Your task to perform on an android device: Open Amazon Image 0: 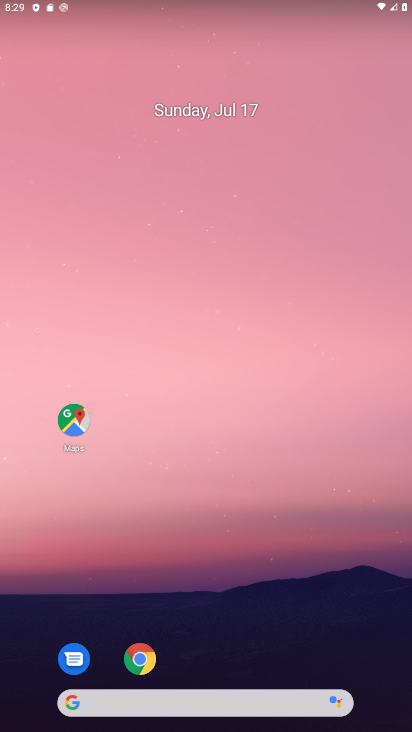
Step 0: click (139, 659)
Your task to perform on an android device: Open Amazon Image 1: 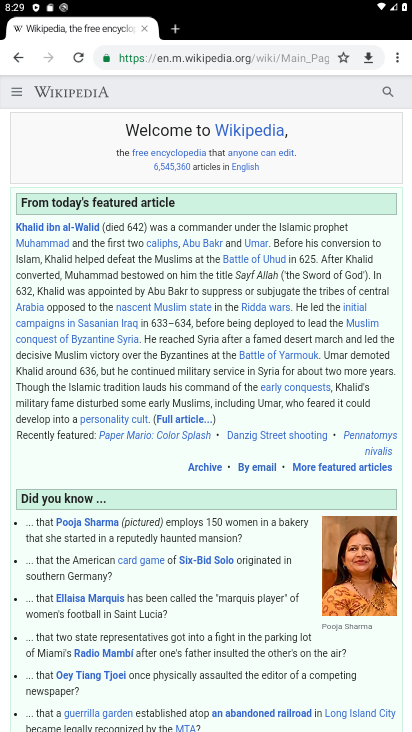
Step 1: click (304, 55)
Your task to perform on an android device: Open Amazon Image 2: 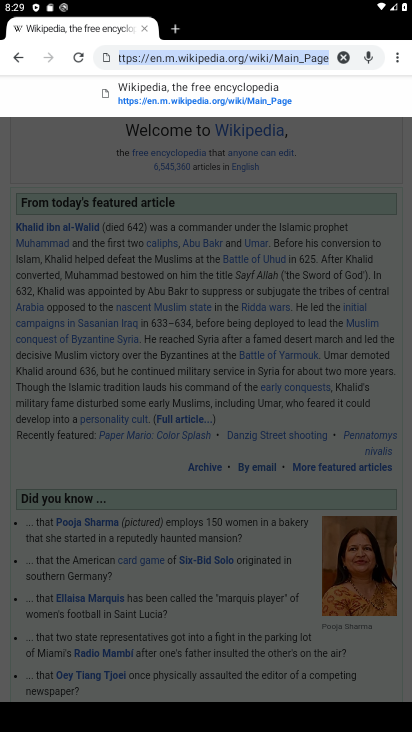
Step 2: click (342, 56)
Your task to perform on an android device: Open Amazon Image 3: 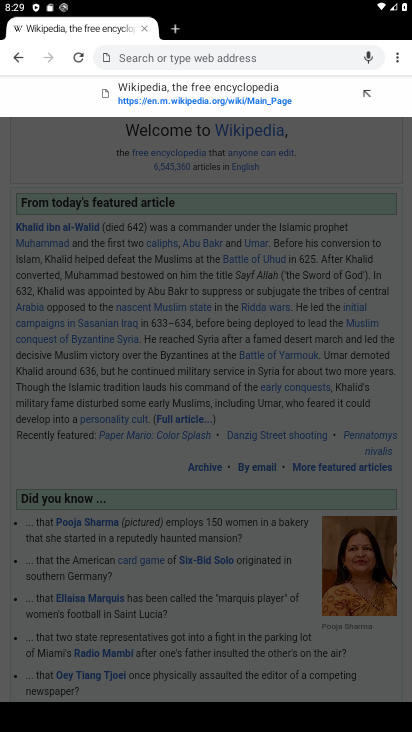
Step 3: click (312, 55)
Your task to perform on an android device: Open Amazon Image 4: 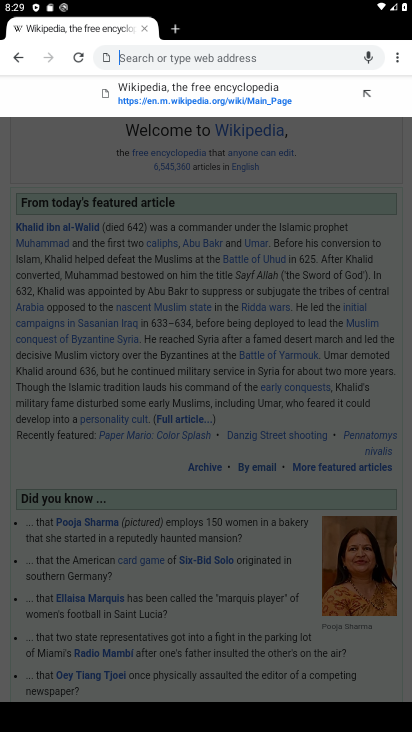
Step 4: type "Amazon"
Your task to perform on an android device: Open Amazon Image 5: 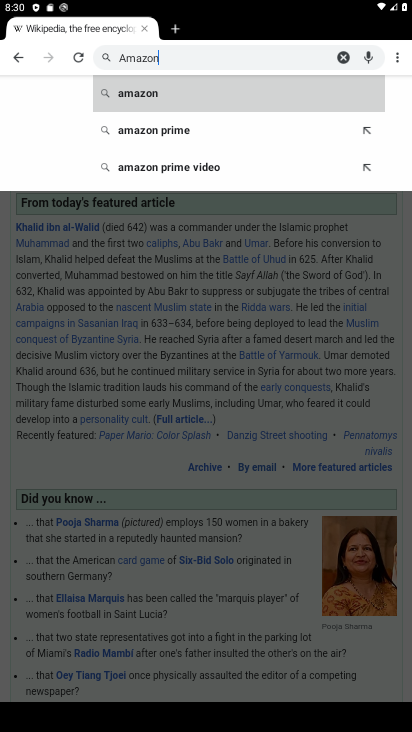
Step 5: click (174, 95)
Your task to perform on an android device: Open Amazon Image 6: 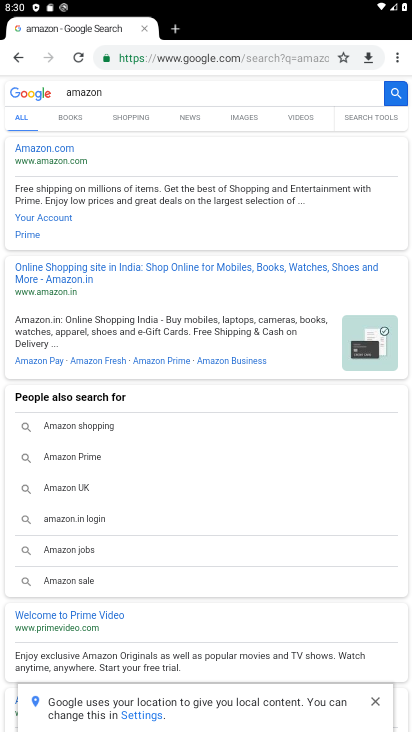
Step 6: click (70, 156)
Your task to perform on an android device: Open Amazon Image 7: 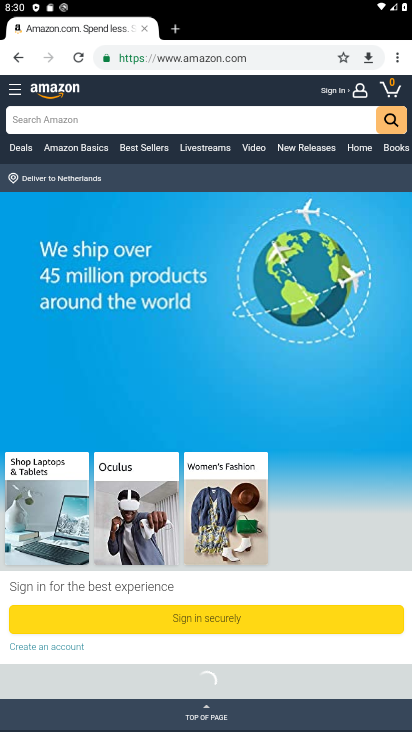
Step 7: task complete